Your task to perform on an android device: Go to notification settings Image 0: 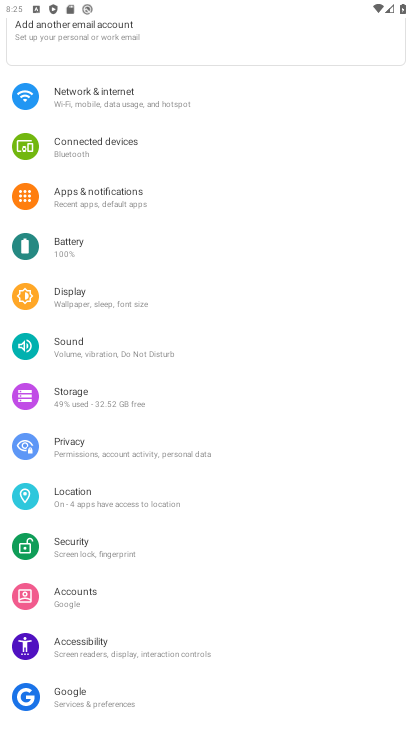
Step 0: click (71, 190)
Your task to perform on an android device: Go to notification settings Image 1: 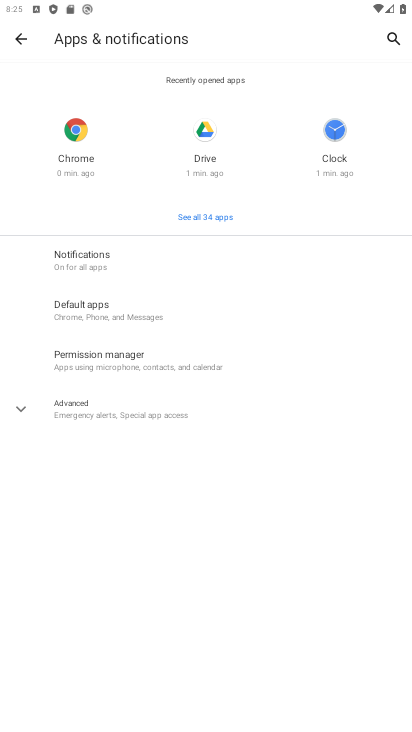
Step 1: click (80, 253)
Your task to perform on an android device: Go to notification settings Image 2: 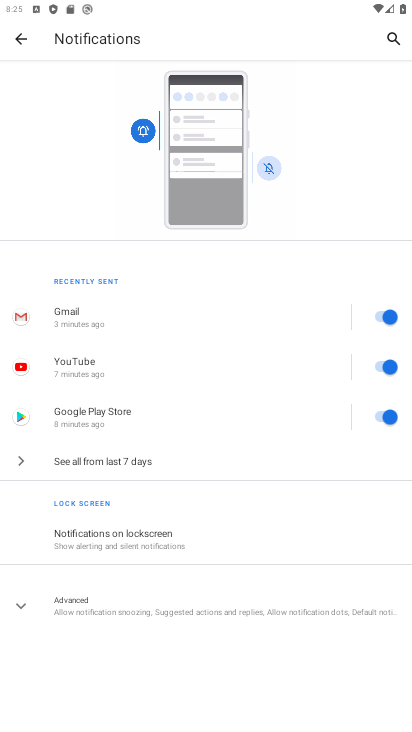
Step 2: click (23, 602)
Your task to perform on an android device: Go to notification settings Image 3: 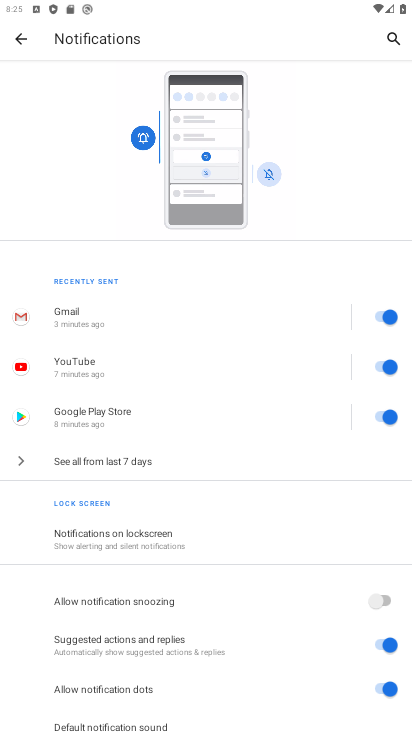
Step 3: task complete